Your task to perform on an android device: change notifications settings Image 0: 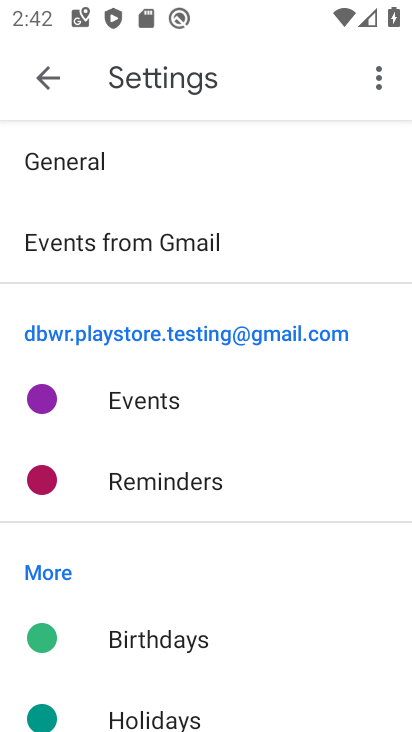
Step 0: press home button
Your task to perform on an android device: change notifications settings Image 1: 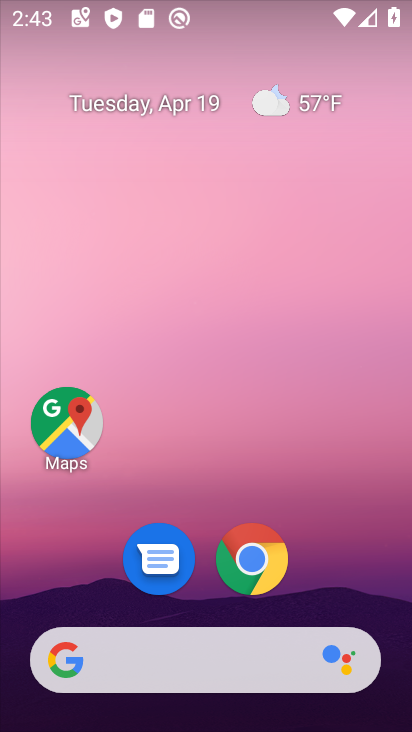
Step 1: drag from (208, 596) to (234, 72)
Your task to perform on an android device: change notifications settings Image 2: 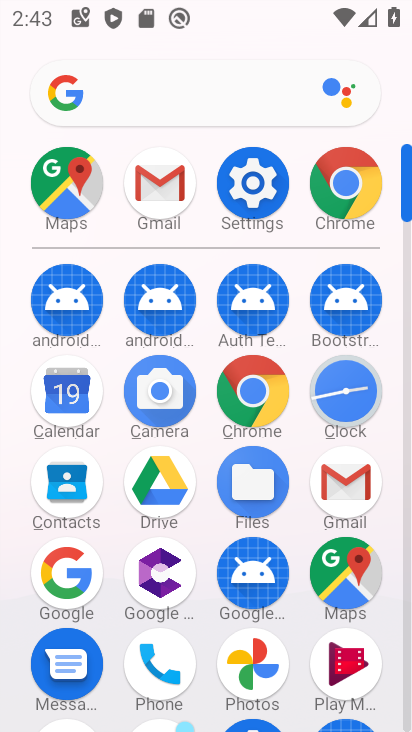
Step 2: click (252, 176)
Your task to perform on an android device: change notifications settings Image 3: 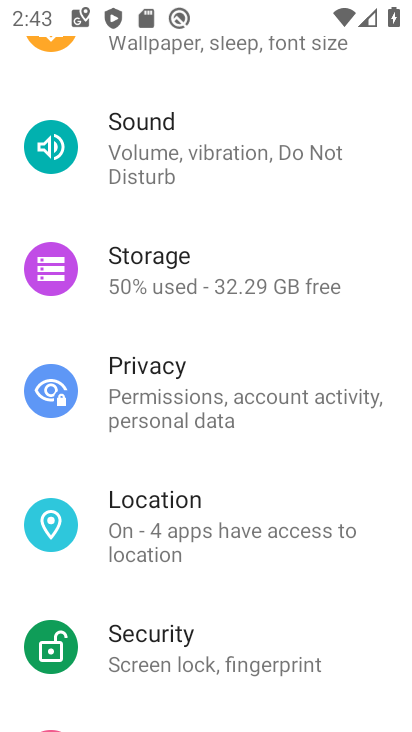
Step 3: drag from (227, 103) to (235, 655)
Your task to perform on an android device: change notifications settings Image 4: 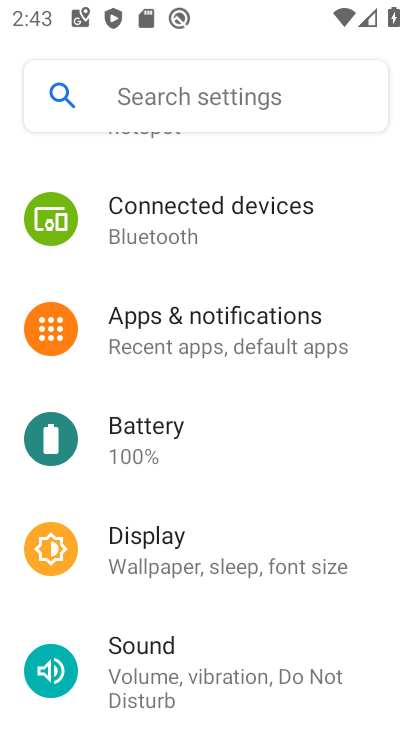
Step 4: click (229, 329)
Your task to perform on an android device: change notifications settings Image 5: 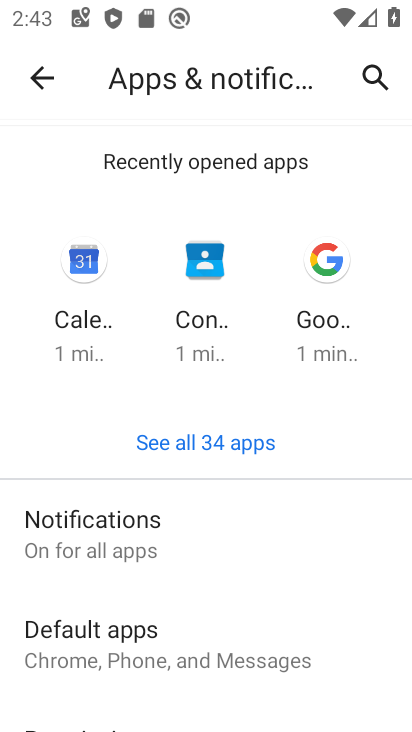
Step 5: click (169, 538)
Your task to perform on an android device: change notifications settings Image 6: 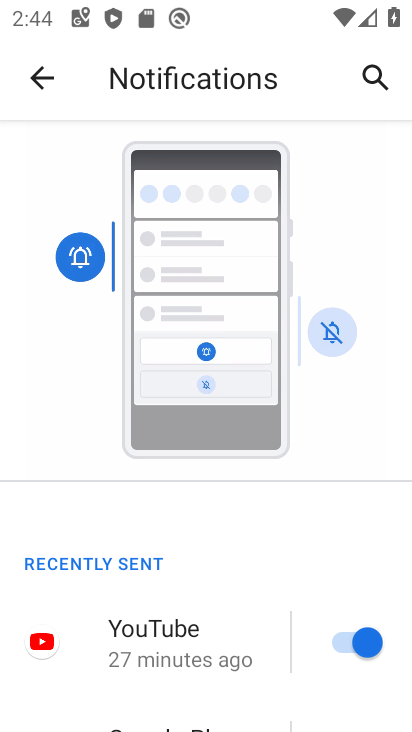
Step 6: drag from (204, 673) to (257, 195)
Your task to perform on an android device: change notifications settings Image 7: 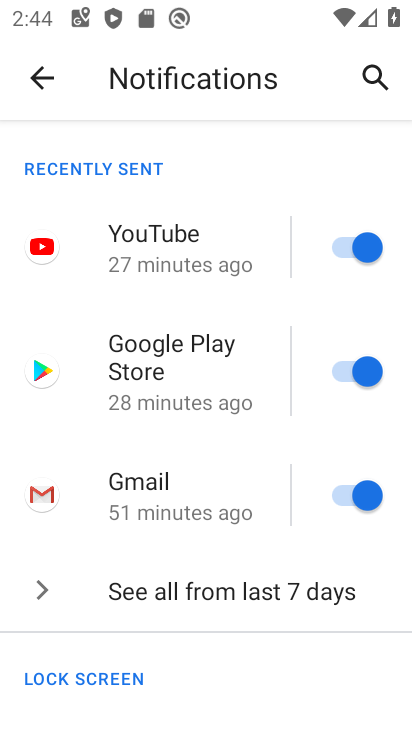
Step 7: click (344, 241)
Your task to perform on an android device: change notifications settings Image 8: 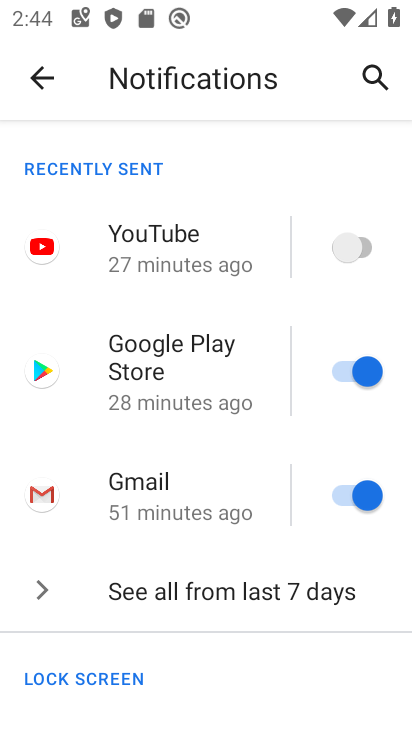
Step 8: click (353, 363)
Your task to perform on an android device: change notifications settings Image 9: 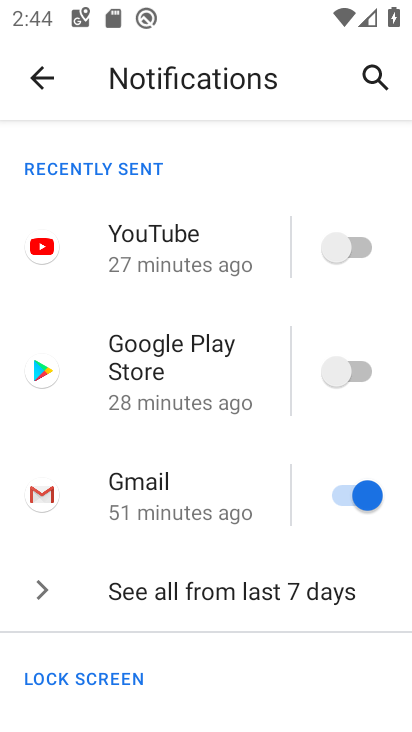
Step 9: click (355, 491)
Your task to perform on an android device: change notifications settings Image 10: 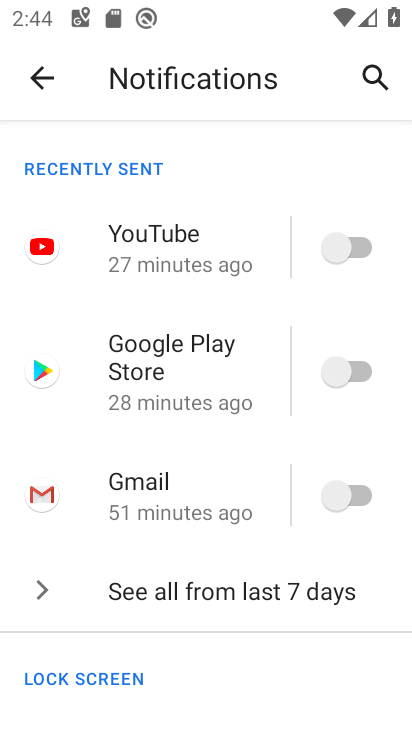
Step 10: drag from (169, 653) to (205, 211)
Your task to perform on an android device: change notifications settings Image 11: 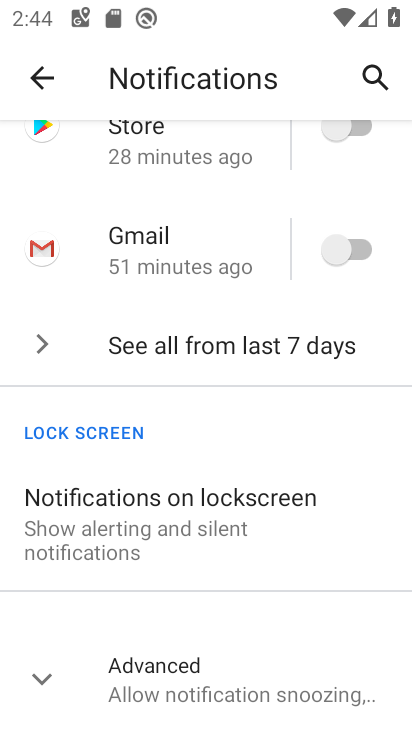
Step 11: click (258, 516)
Your task to perform on an android device: change notifications settings Image 12: 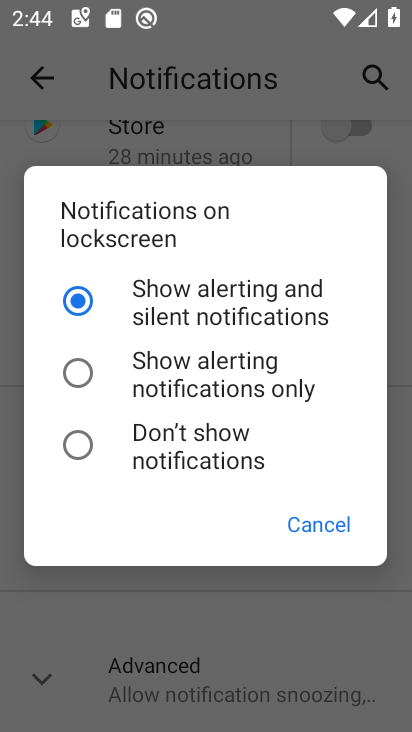
Step 12: click (77, 369)
Your task to perform on an android device: change notifications settings Image 13: 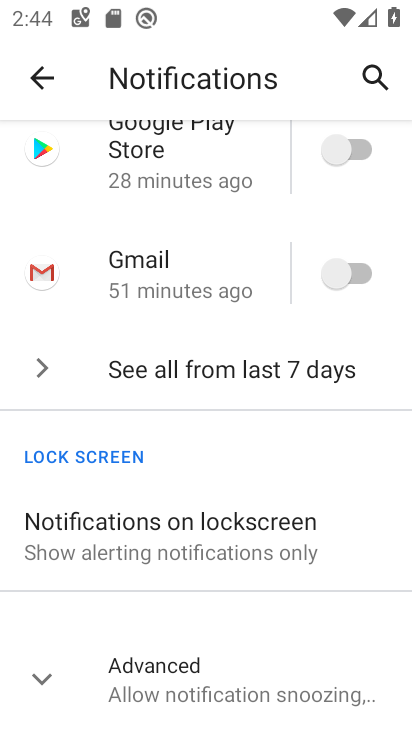
Step 13: task complete